Your task to perform on an android device: Open Android settings Image 0: 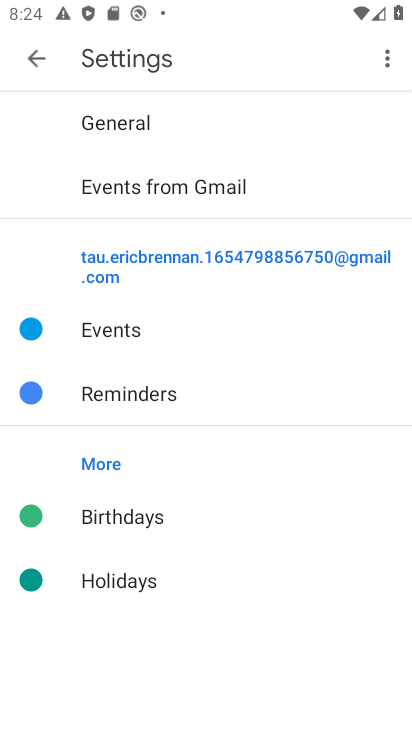
Step 0: press home button
Your task to perform on an android device: Open Android settings Image 1: 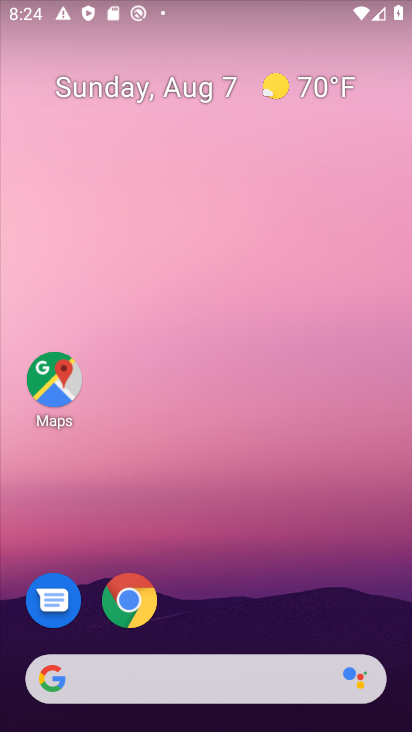
Step 1: drag from (177, 228) to (208, 136)
Your task to perform on an android device: Open Android settings Image 2: 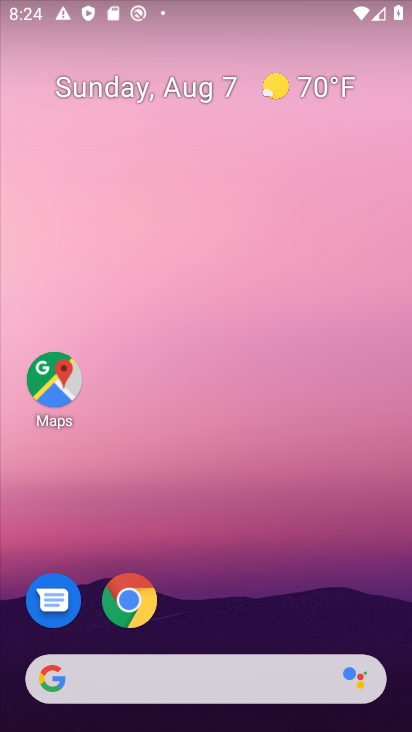
Step 2: drag from (189, 625) to (169, 62)
Your task to perform on an android device: Open Android settings Image 3: 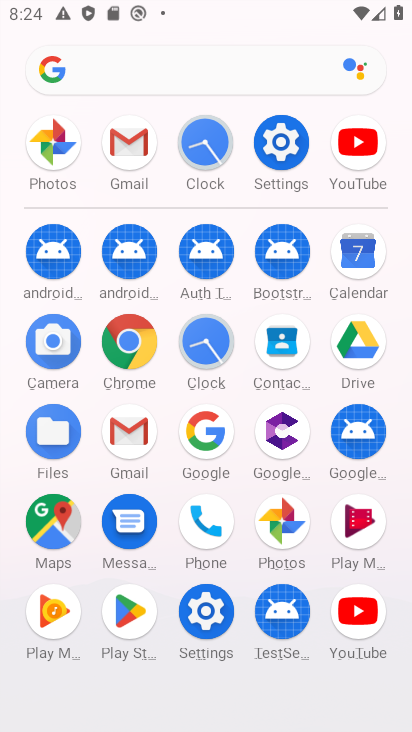
Step 3: click (206, 612)
Your task to perform on an android device: Open Android settings Image 4: 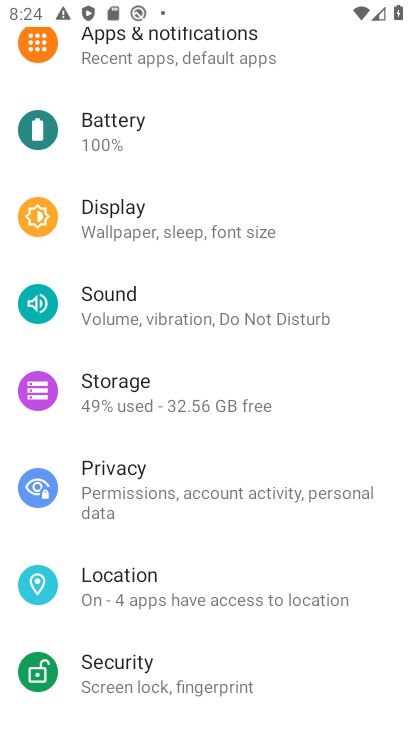
Step 4: drag from (206, 584) to (270, 212)
Your task to perform on an android device: Open Android settings Image 5: 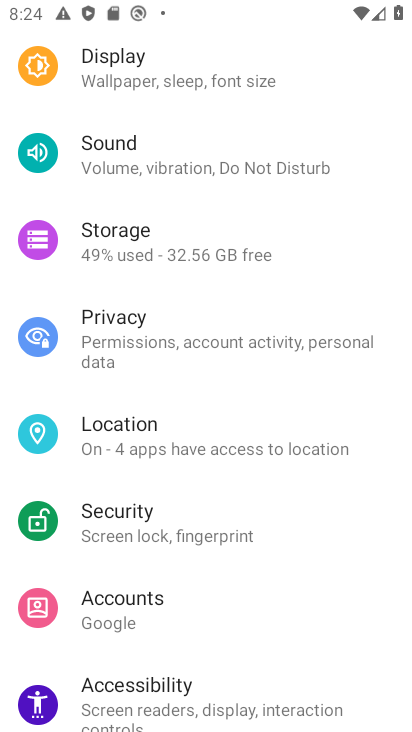
Step 5: drag from (145, 602) to (179, 294)
Your task to perform on an android device: Open Android settings Image 6: 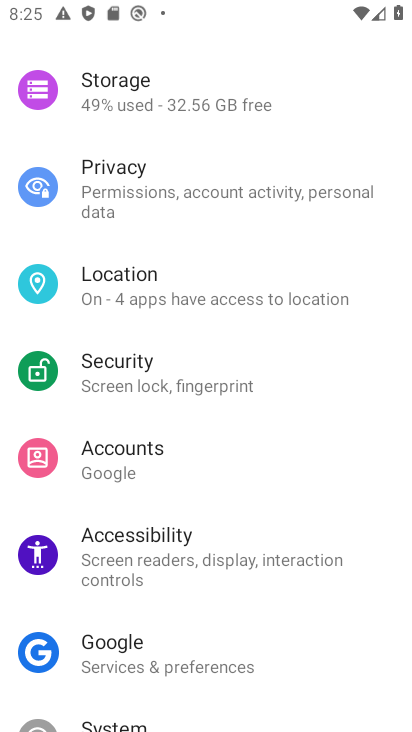
Step 6: drag from (130, 640) to (200, 252)
Your task to perform on an android device: Open Android settings Image 7: 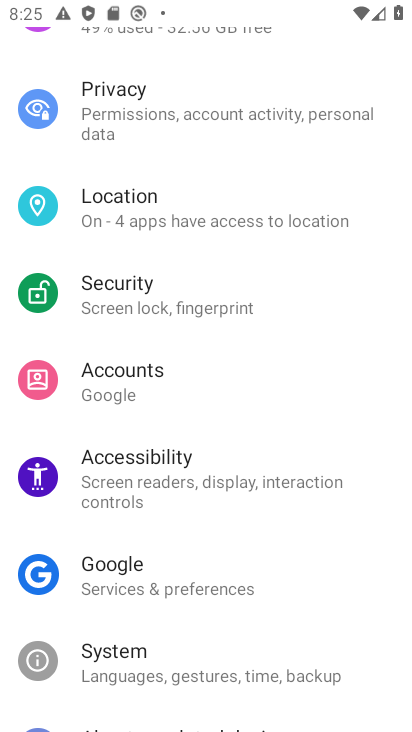
Step 7: drag from (158, 665) to (212, 277)
Your task to perform on an android device: Open Android settings Image 8: 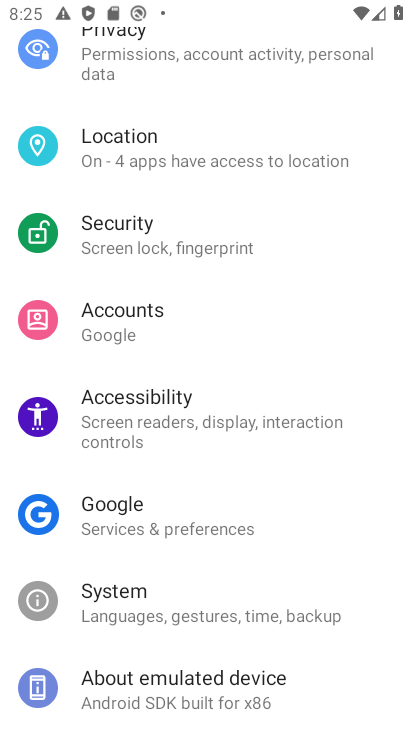
Step 8: click (115, 682)
Your task to perform on an android device: Open Android settings Image 9: 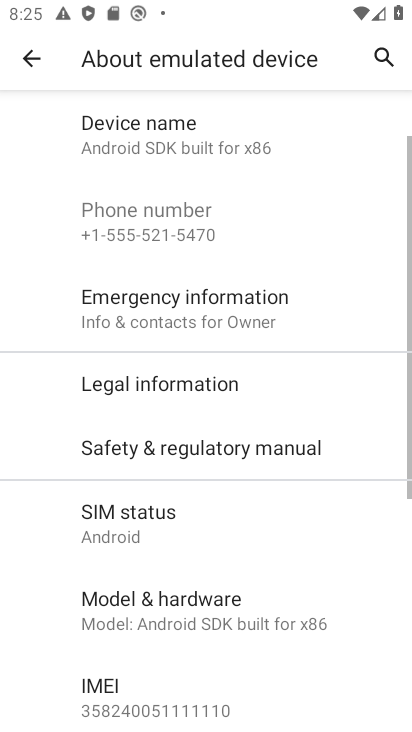
Step 9: task complete